Your task to perform on an android device: Show me productivity apps on the Play Store Image 0: 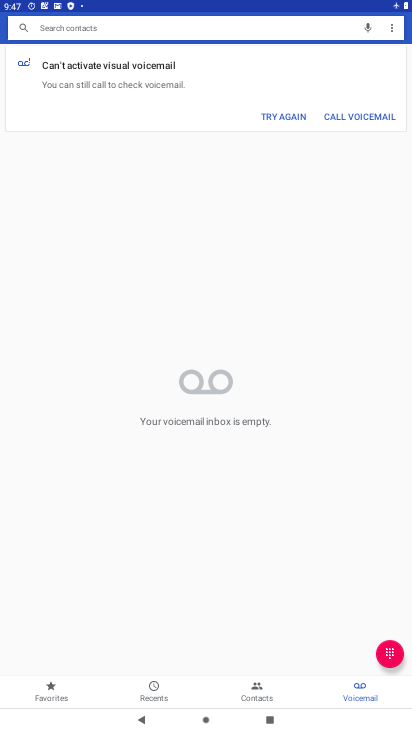
Step 0: drag from (207, 647) to (224, 351)
Your task to perform on an android device: Show me productivity apps on the Play Store Image 1: 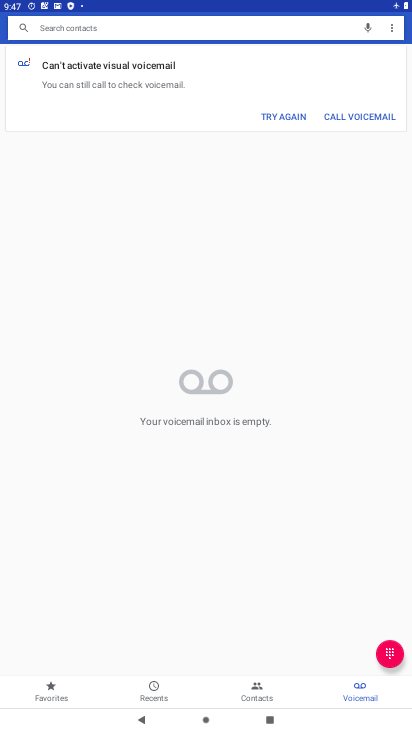
Step 1: press home button
Your task to perform on an android device: Show me productivity apps on the Play Store Image 2: 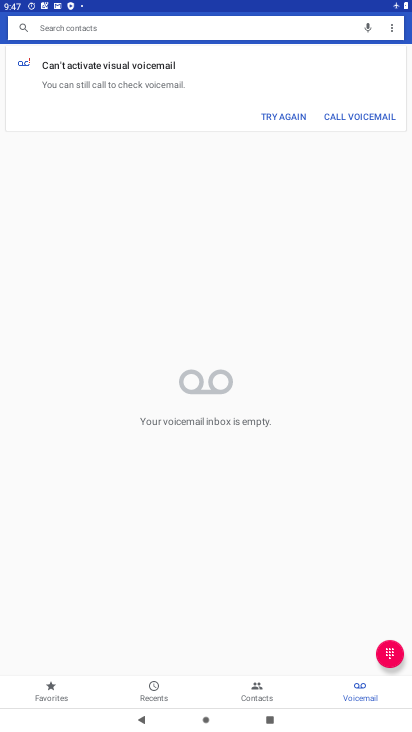
Step 2: press home button
Your task to perform on an android device: Show me productivity apps on the Play Store Image 3: 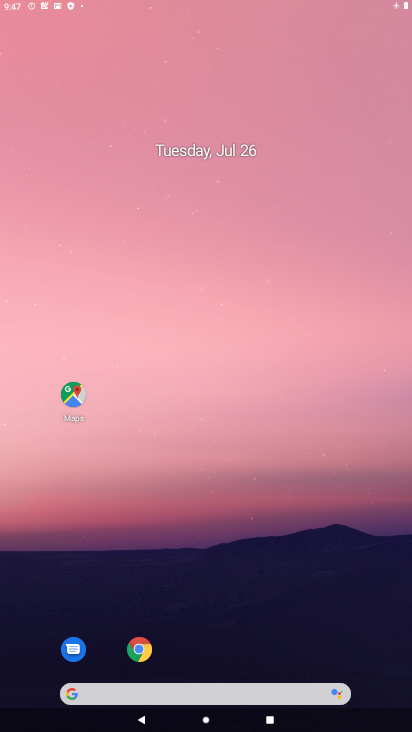
Step 3: drag from (221, 596) to (298, 34)
Your task to perform on an android device: Show me productivity apps on the Play Store Image 4: 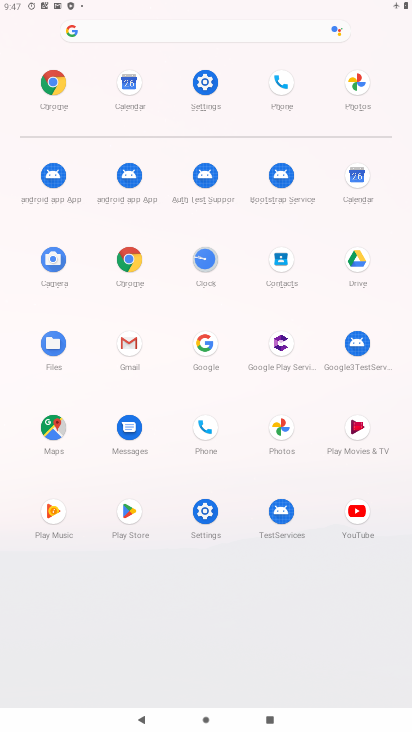
Step 4: click (129, 509)
Your task to perform on an android device: Show me productivity apps on the Play Store Image 5: 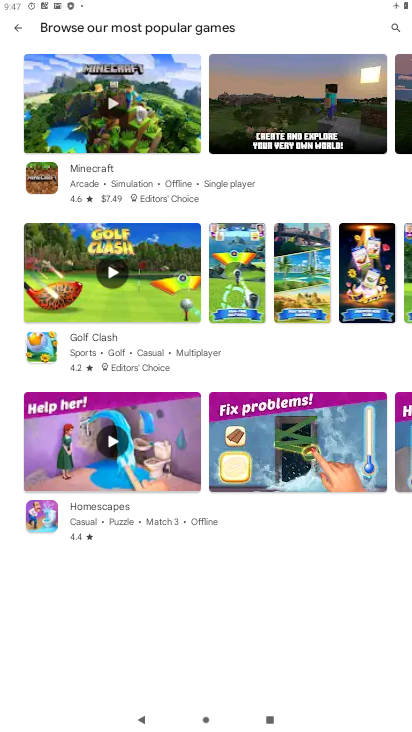
Step 5: drag from (199, 176) to (195, 724)
Your task to perform on an android device: Show me productivity apps on the Play Store Image 6: 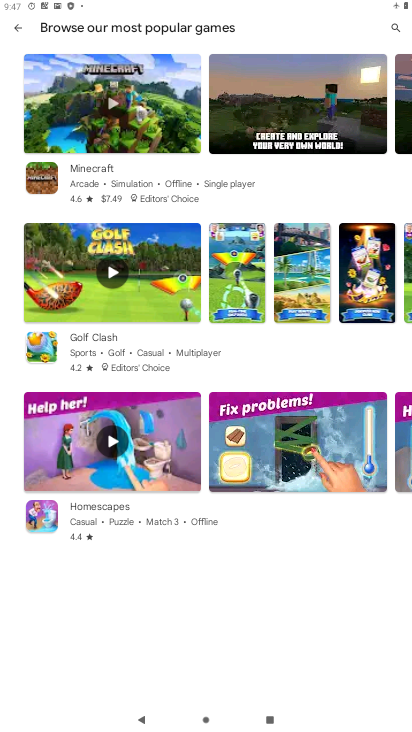
Step 6: click (5, 23)
Your task to perform on an android device: Show me productivity apps on the Play Store Image 7: 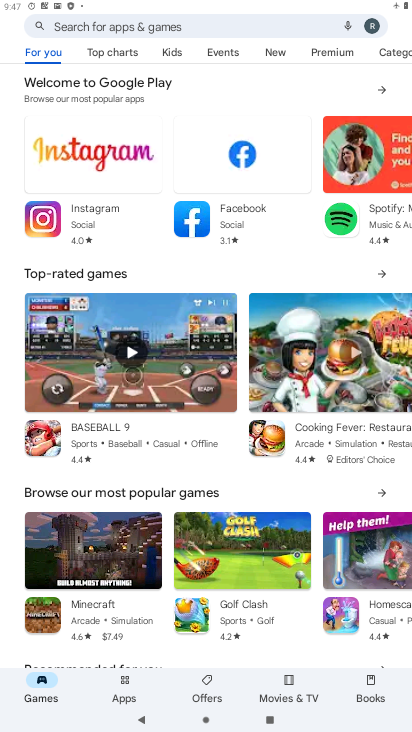
Step 7: task complete